Your task to perform on an android device: Show me recent news Image 0: 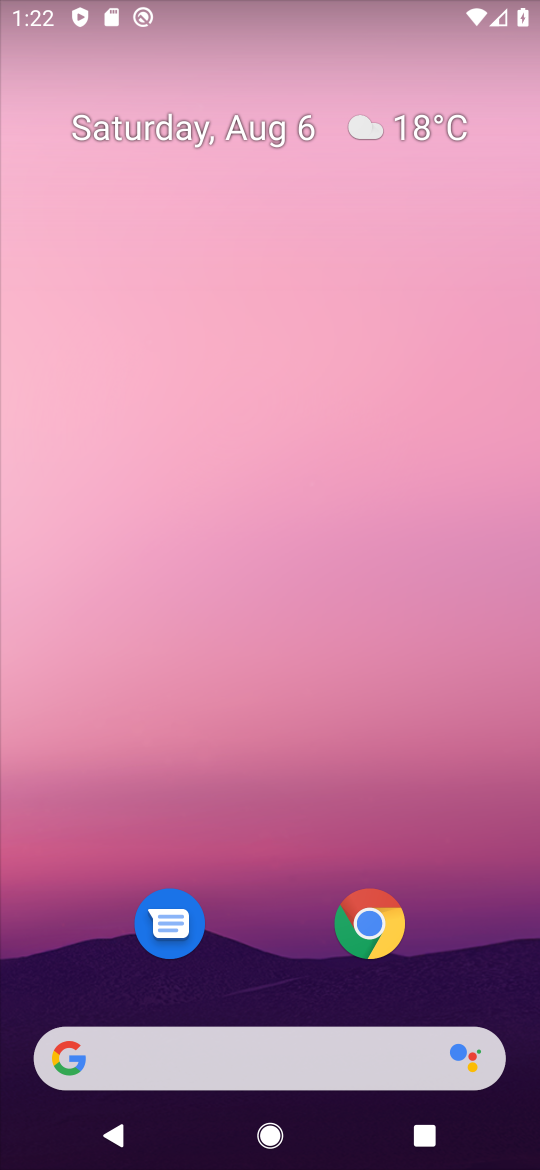
Step 0: click (331, 381)
Your task to perform on an android device: Show me recent news Image 1: 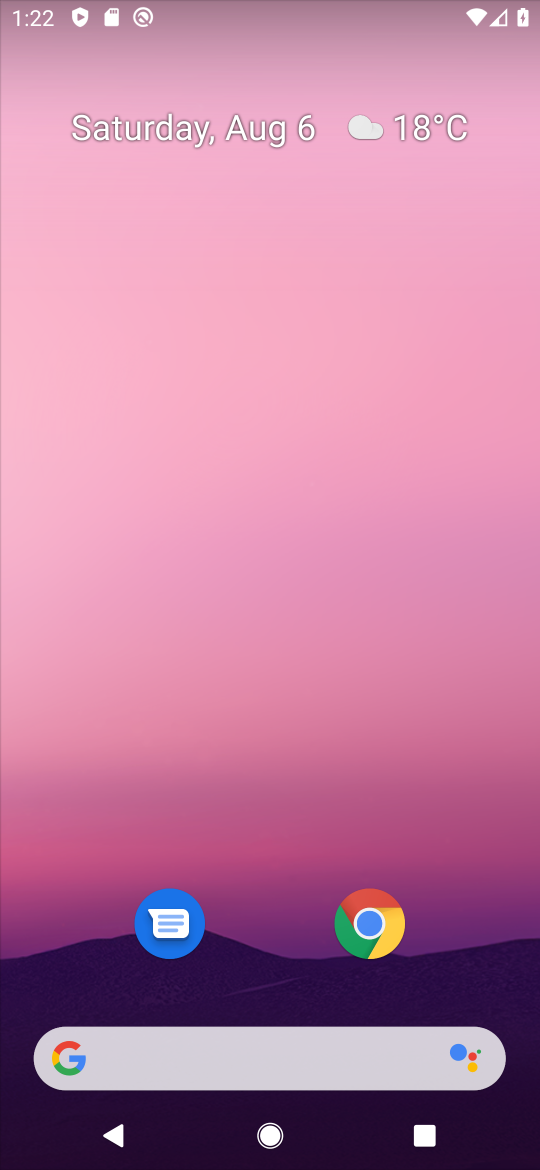
Step 1: drag from (326, 771) to (455, 112)
Your task to perform on an android device: Show me recent news Image 2: 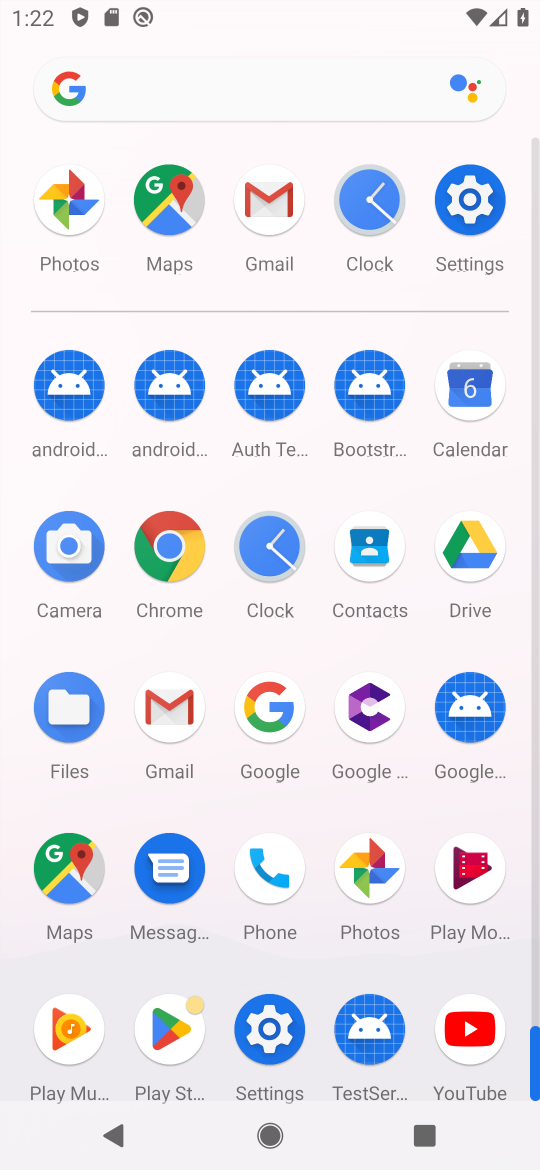
Step 2: click (320, 80)
Your task to perform on an android device: Show me recent news Image 3: 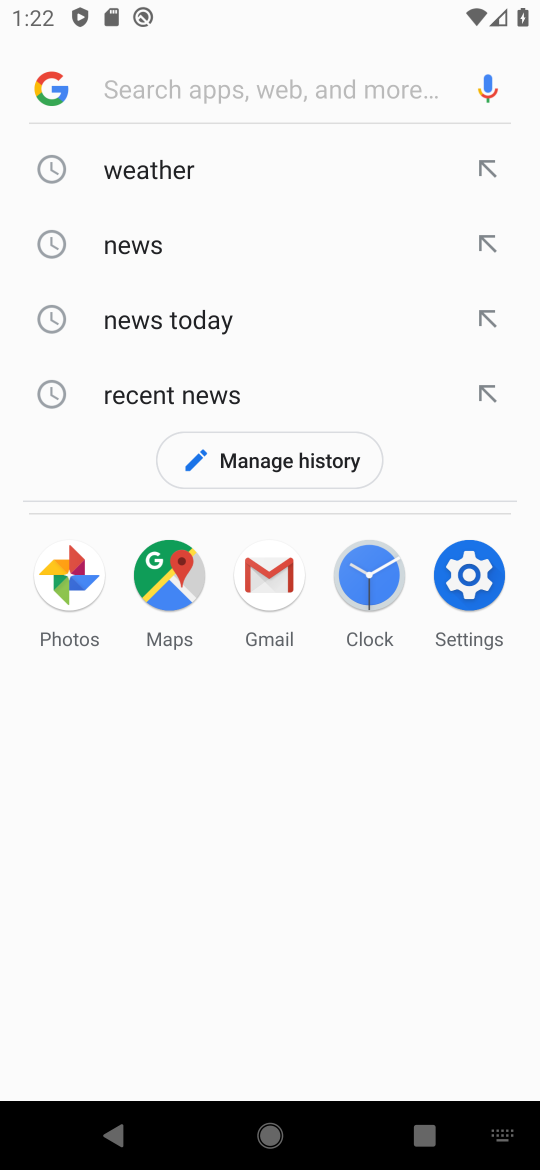
Step 3: type " recent news"
Your task to perform on an android device: Show me recent news Image 4: 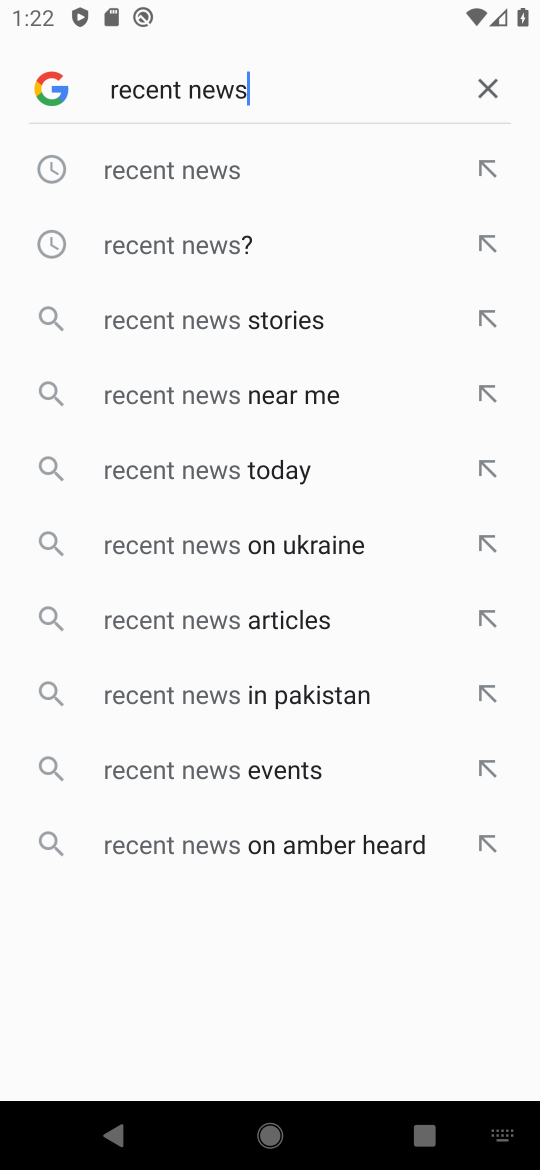
Step 4: click (254, 245)
Your task to perform on an android device: Show me recent news Image 5: 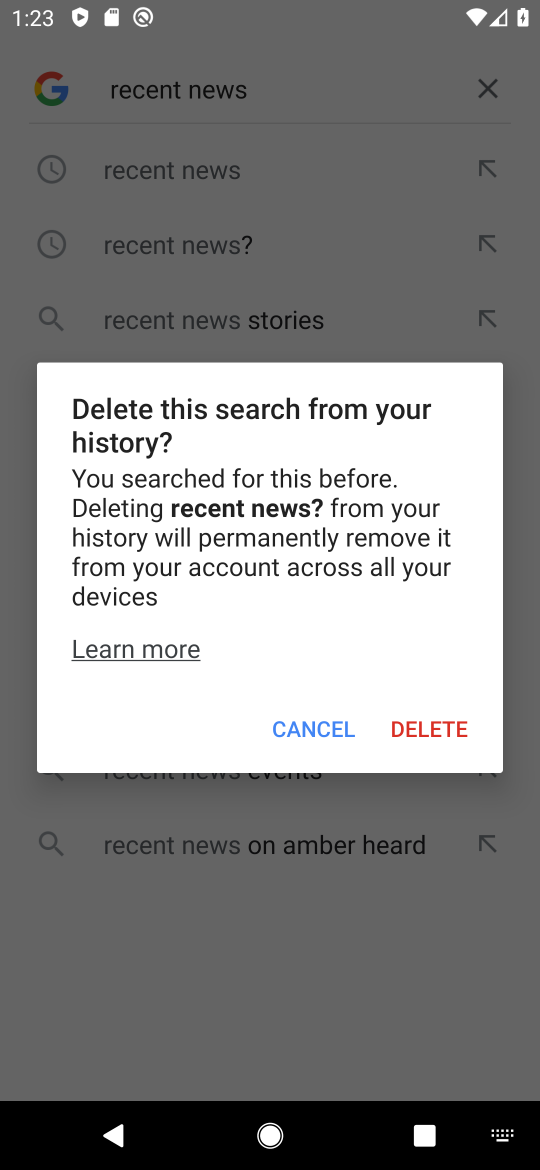
Step 5: click (334, 726)
Your task to perform on an android device: Show me recent news Image 6: 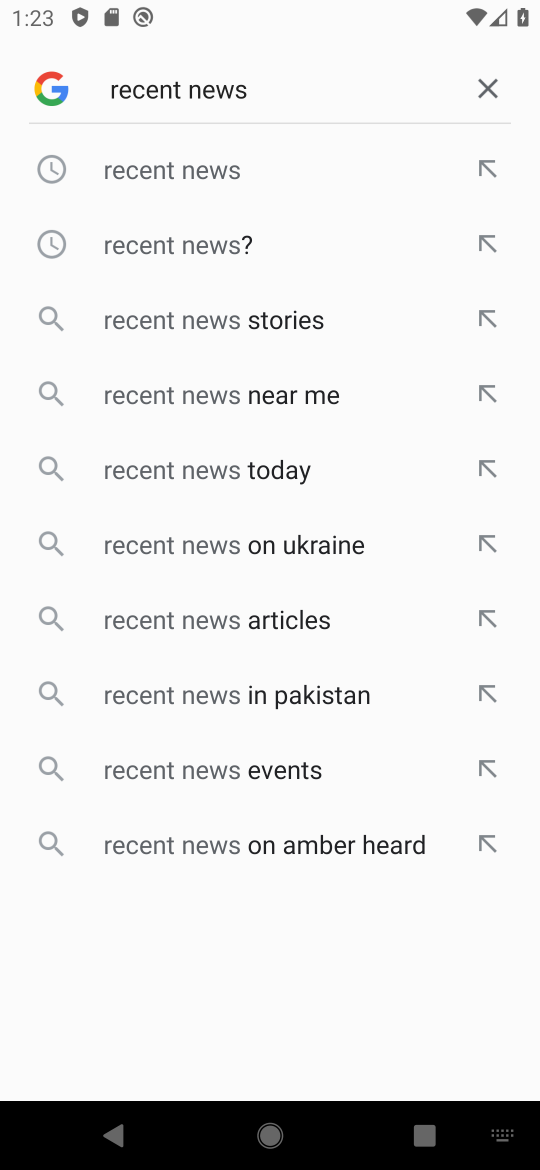
Step 6: click (94, 185)
Your task to perform on an android device: Show me recent news Image 7: 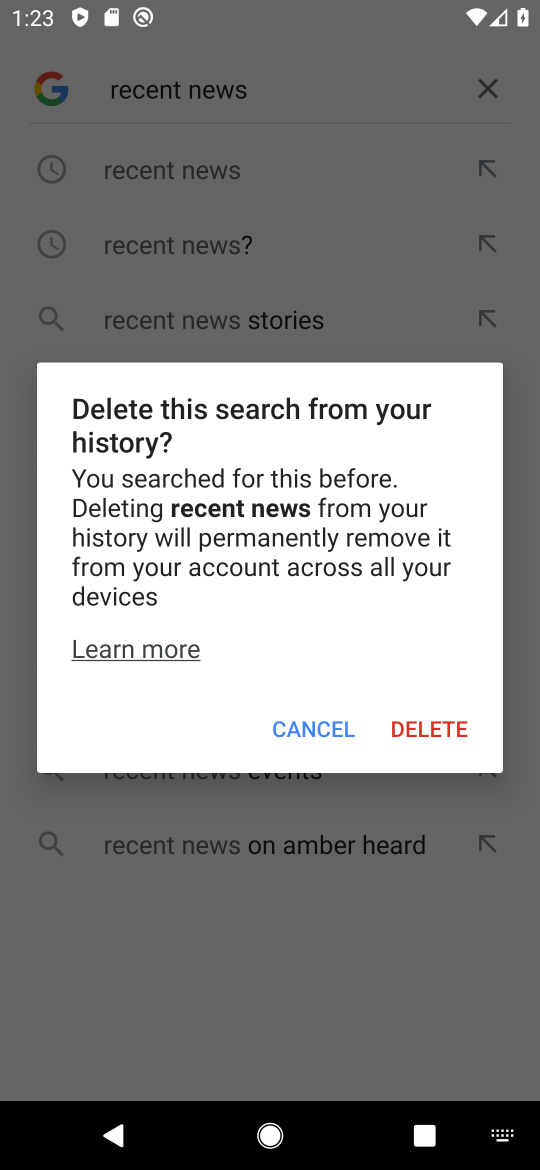
Step 7: click (306, 719)
Your task to perform on an android device: Show me recent news Image 8: 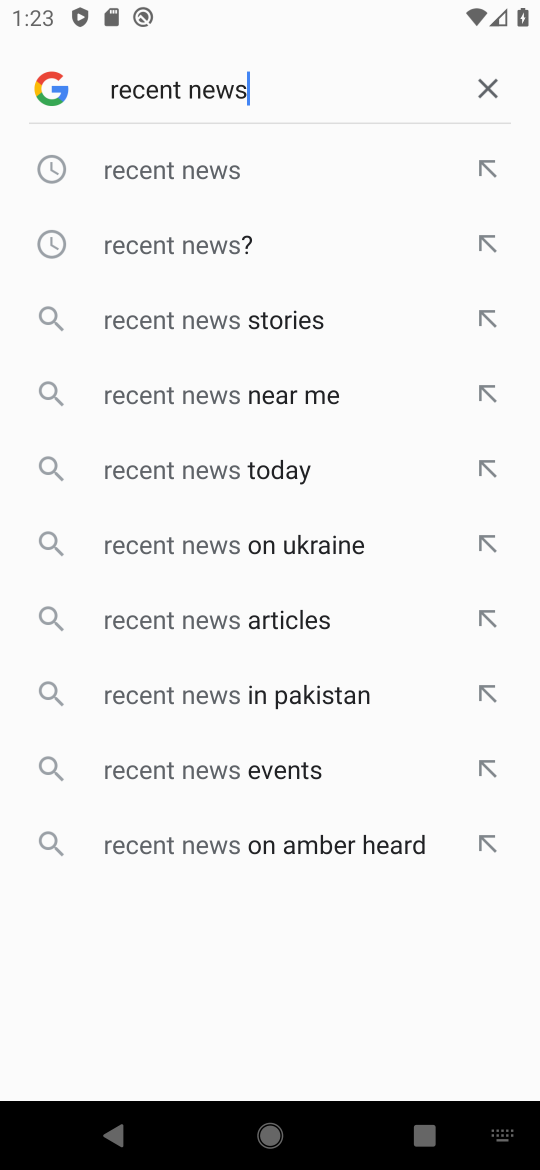
Step 8: click (152, 247)
Your task to perform on an android device: Show me recent news Image 9: 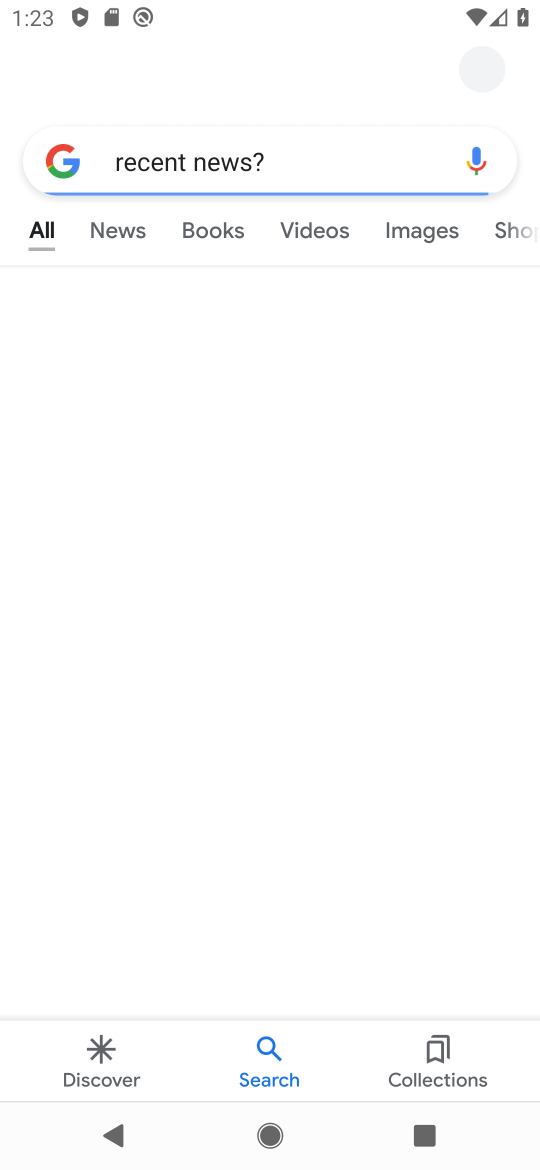
Step 9: task complete